Your task to perform on an android device: turn off priority inbox in the gmail app Image 0: 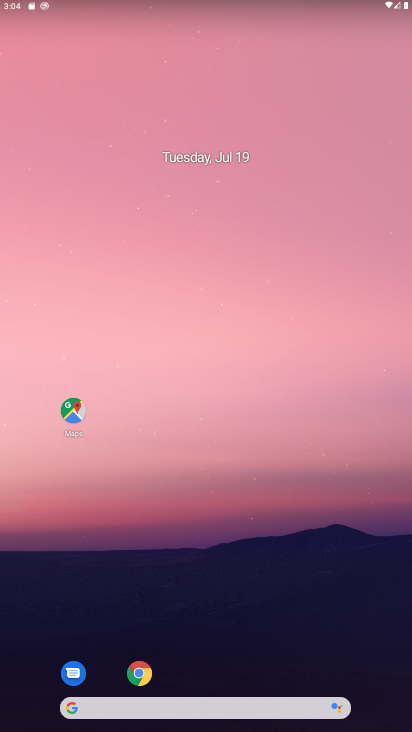
Step 0: drag from (203, 660) to (275, 89)
Your task to perform on an android device: turn off priority inbox in the gmail app Image 1: 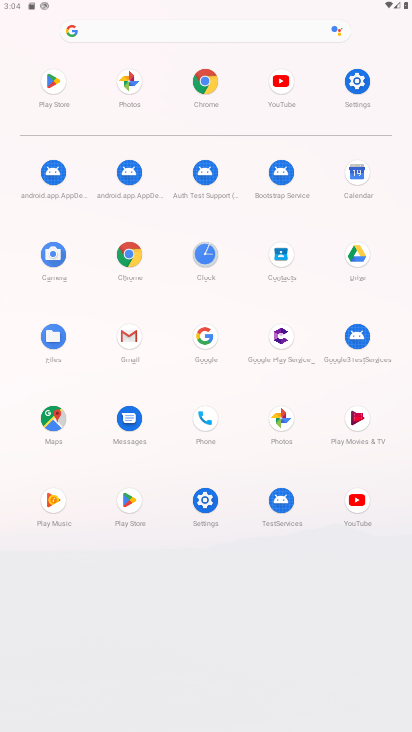
Step 1: click (138, 341)
Your task to perform on an android device: turn off priority inbox in the gmail app Image 2: 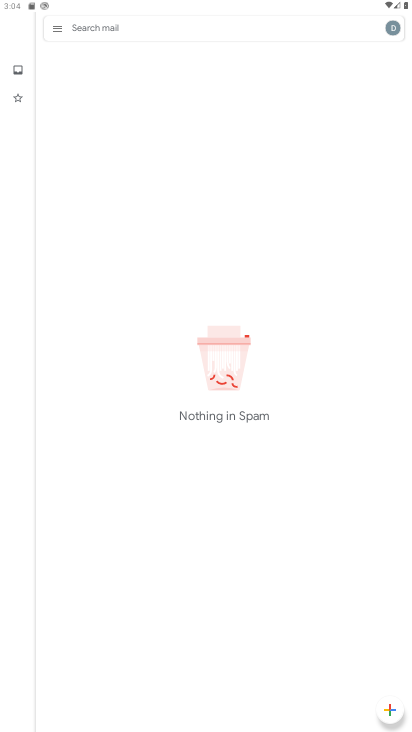
Step 2: click (62, 32)
Your task to perform on an android device: turn off priority inbox in the gmail app Image 3: 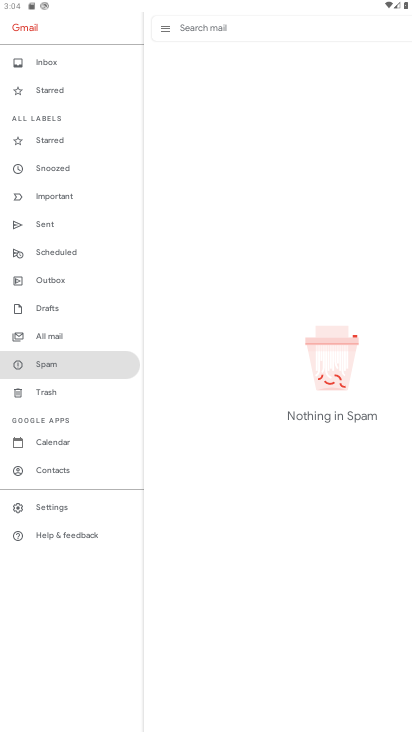
Step 3: click (48, 508)
Your task to perform on an android device: turn off priority inbox in the gmail app Image 4: 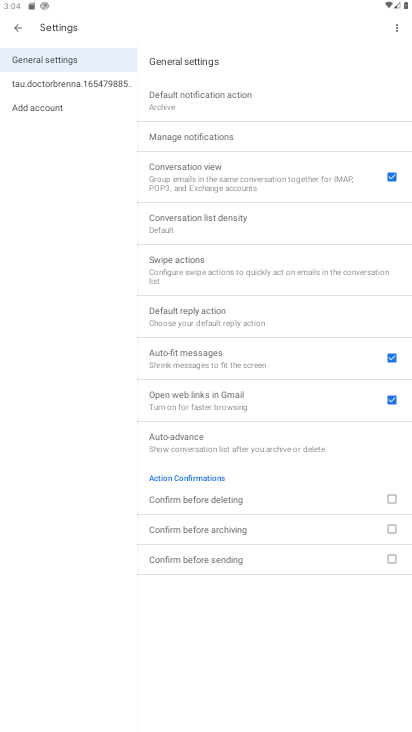
Step 4: click (96, 90)
Your task to perform on an android device: turn off priority inbox in the gmail app Image 5: 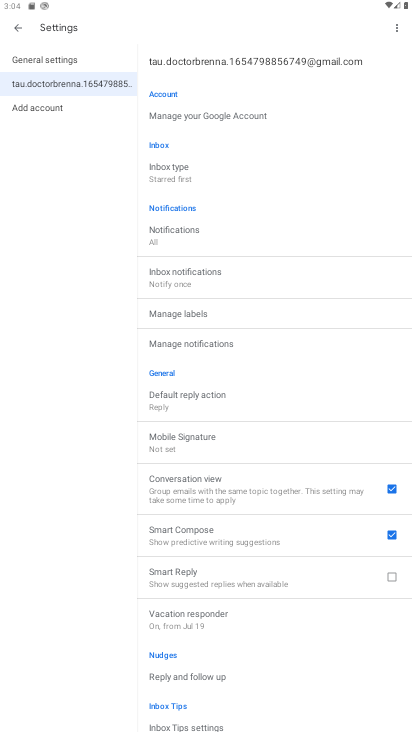
Step 5: click (184, 172)
Your task to perform on an android device: turn off priority inbox in the gmail app Image 6: 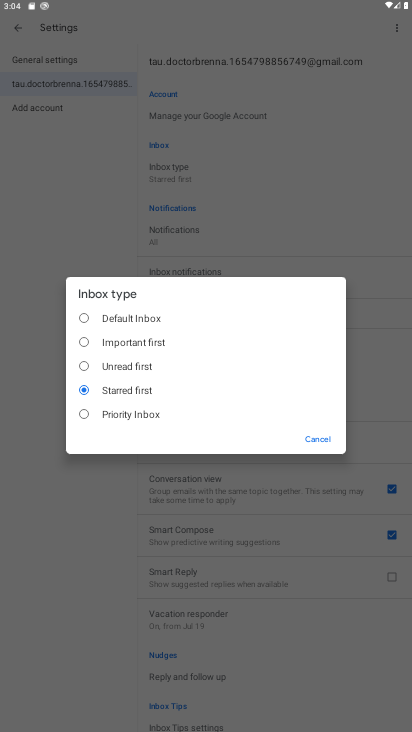
Step 6: click (116, 320)
Your task to perform on an android device: turn off priority inbox in the gmail app Image 7: 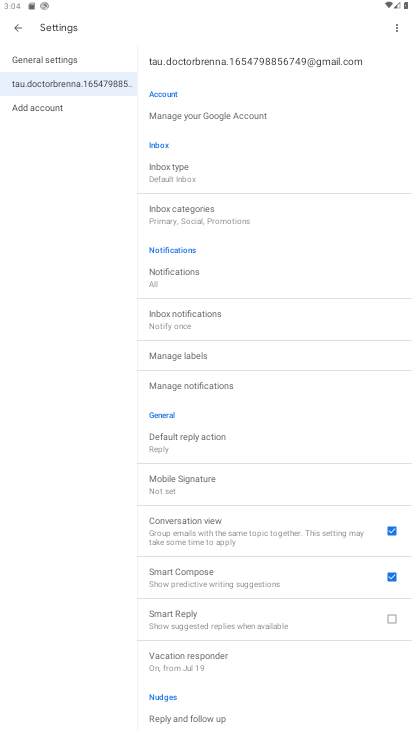
Step 7: task complete